Your task to perform on an android device: move an email to a new category in the gmail app Image 0: 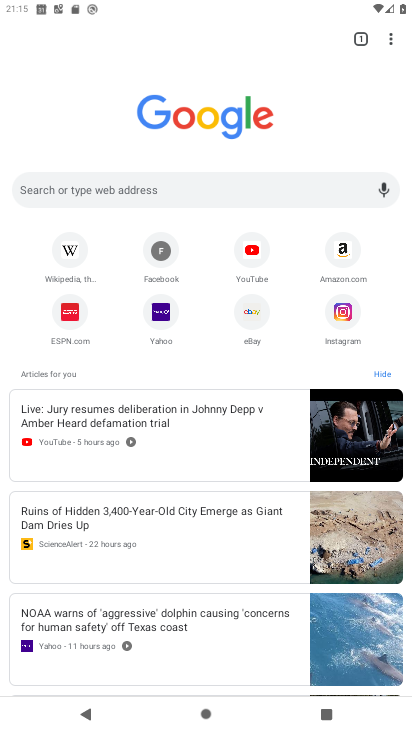
Step 0: press back button
Your task to perform on an android device: move an email to a new category in the gmail app Image 1: 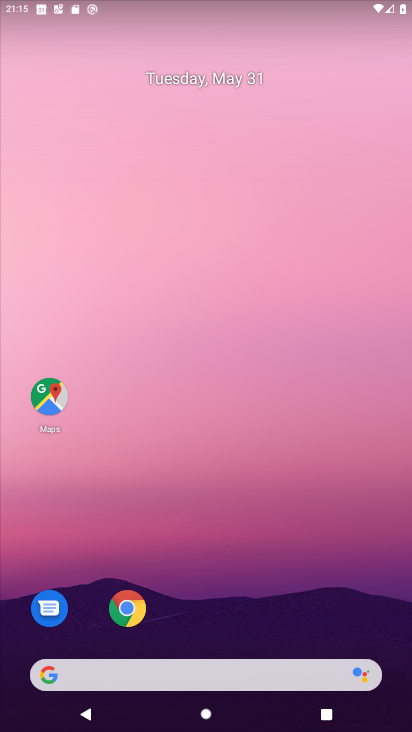
Step 1: drag from (226, 531) to (214, 164)
Your task to perform on an android device: move an email to a new category in the gmail app Image 2: 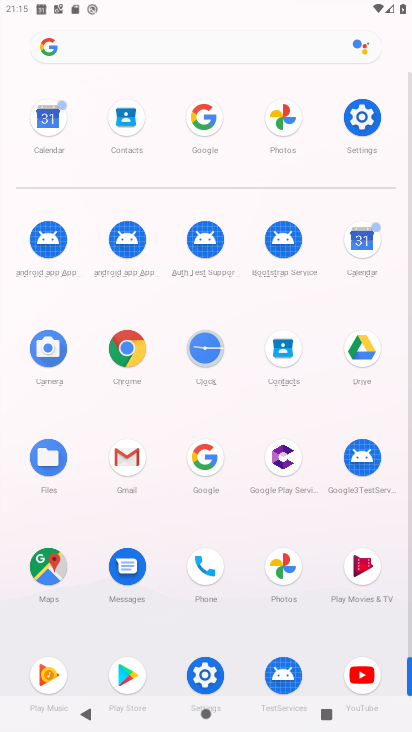
Step 2: click (200, 116)
Your task to perform on an android device: move an email to a new category in the gmail app Image 3: 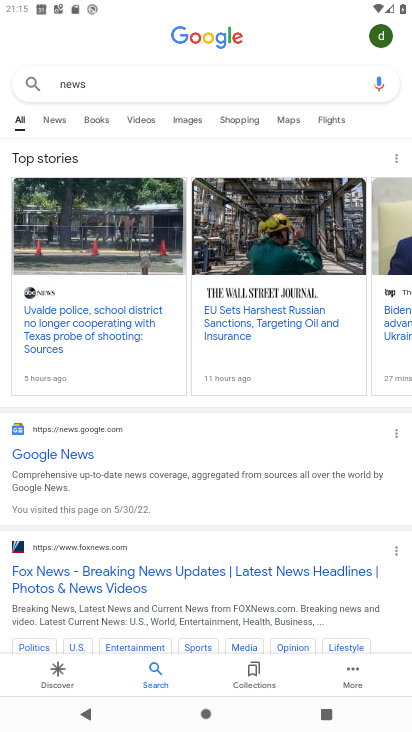
Step 3: press back button
Your task to perform on an android device: move an email to a new category in the gmail app Image 4: 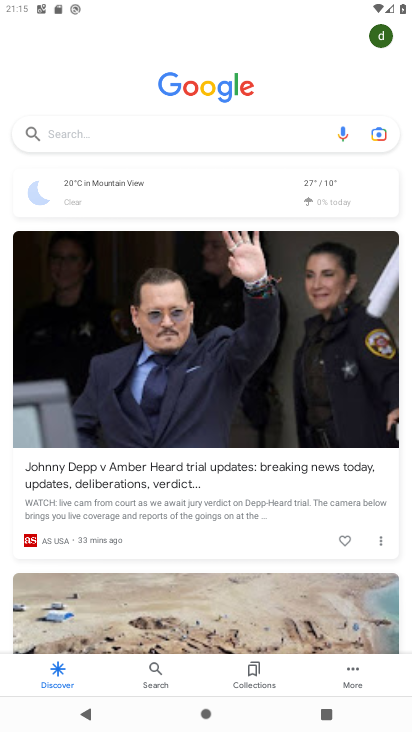
Step 4: press back button
Your task to perform on an android device: move an email to a new category in the gmail app Image 5: 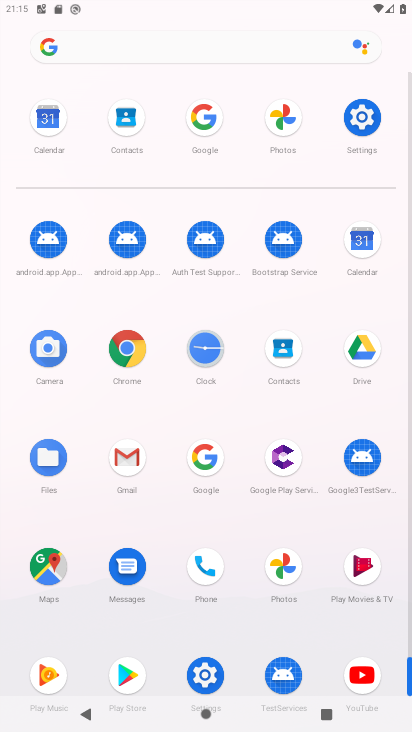
Step 5: click (126, 455)
Your task to perform on an android device: move an email to a new category in the gmail app Image 6: 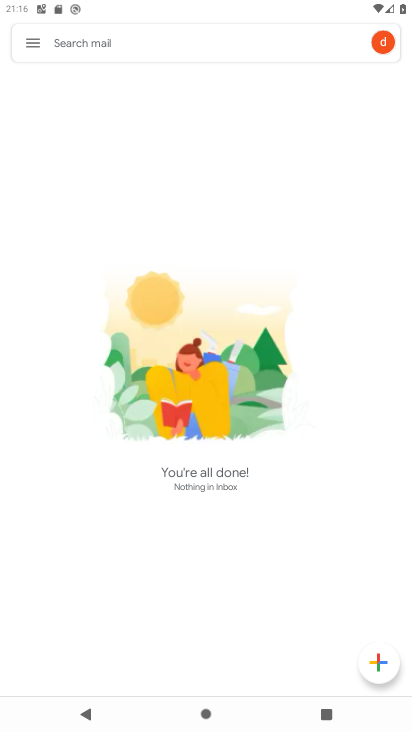
Step 6: click (35, 47)
Your task to perform on an android device: move an email to a new category in the gmail app Image 7: 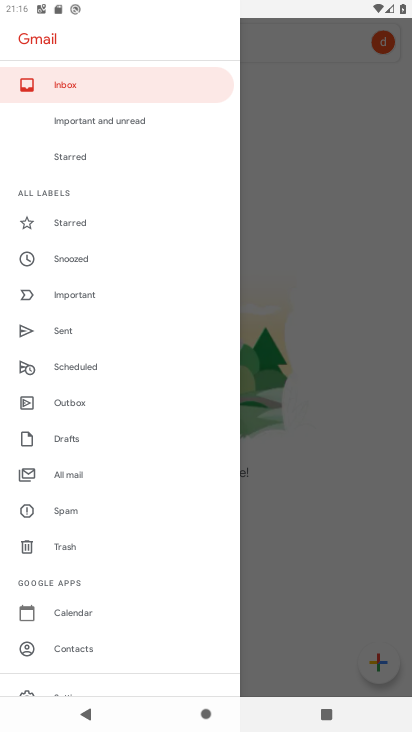
Step 7: click (92, 467)
Your task to perform on an android device: move an email to a new category in the gmail app Image 8: 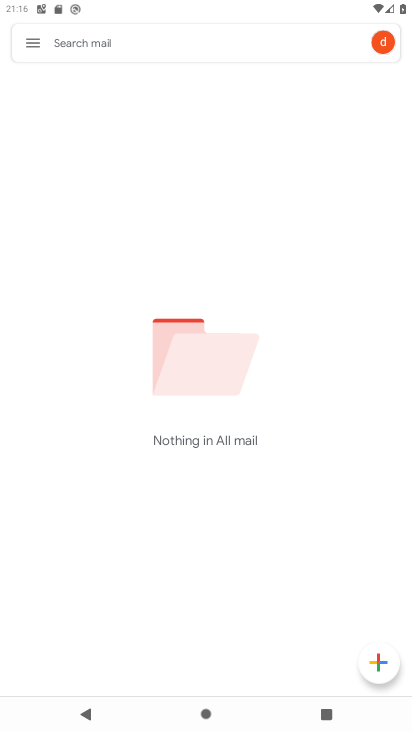
Step 8: task complete